Your task to perform on an android device: turn on javascript in the chrome app Image 0: 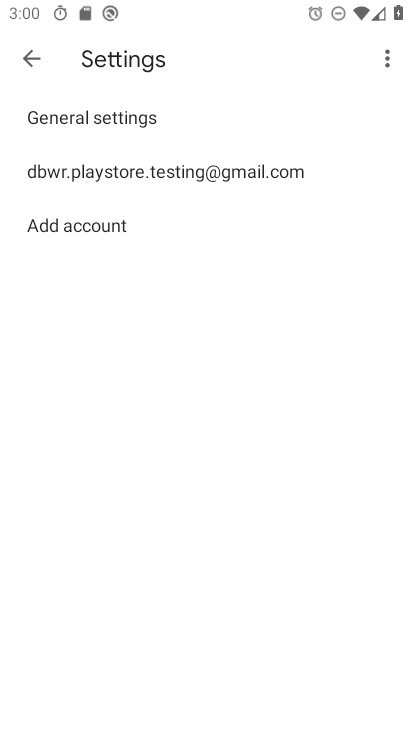
Step 0: press home button
Your task to perform on an android device: turn on javascript in the chrome app Image 1: 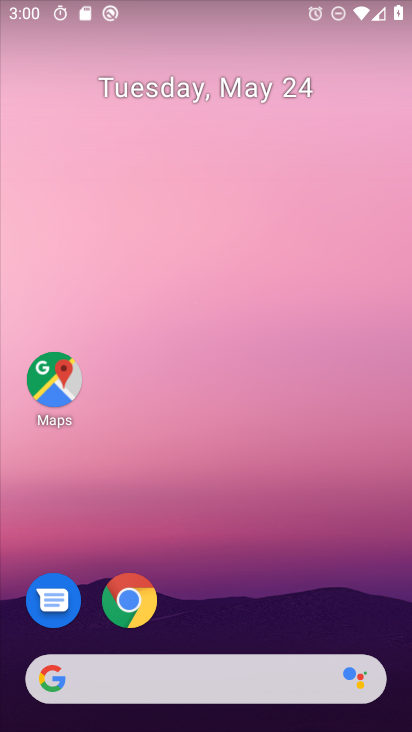
Step 1: click (132, 584)
Your task to perform on an android device: turn on javascript in the chrome app Image 2: 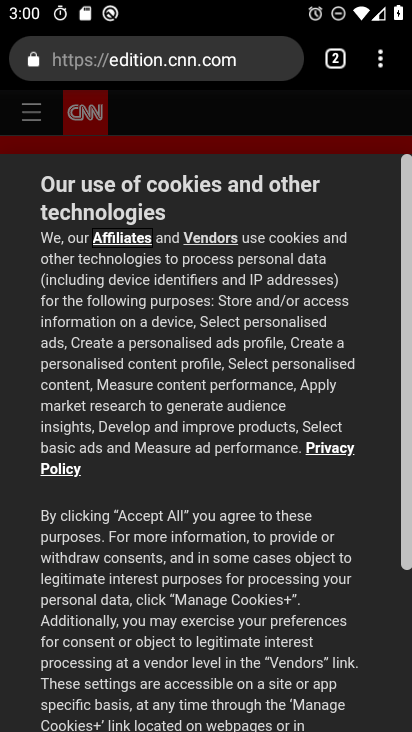
Step 2: click (377, 58)
Your task to perform on an android device: turn on javascript in the chrome app Image 3: 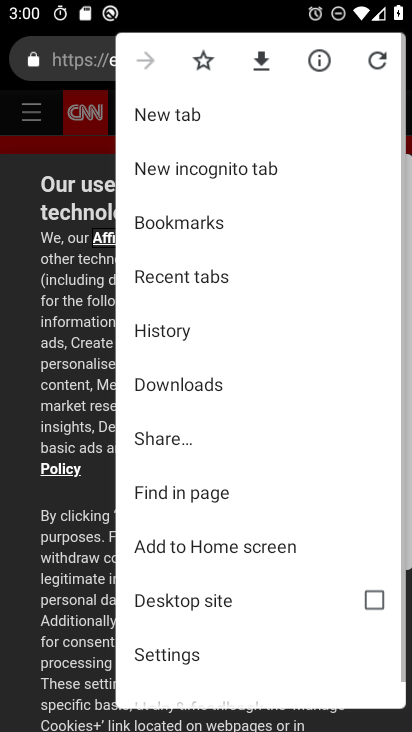
Step 3: drag from (230, 627) to (280, 217)
Your task to perform on an android device: turn on javascript in the chrome app Image 4: 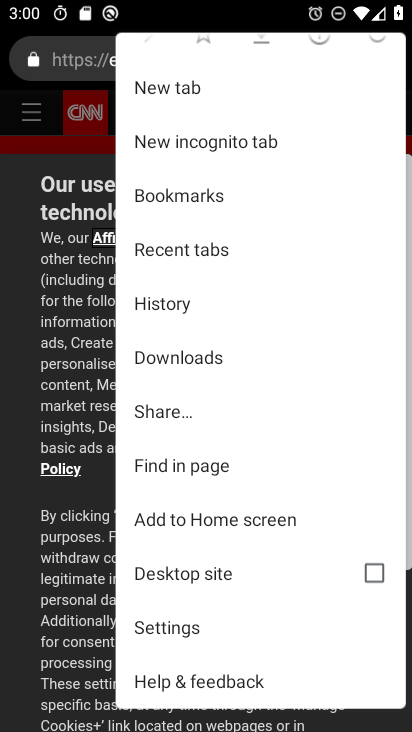
Step 4: click (179, 618)
Your task to perform on an android device: turn on javascript in the chrome app Image 5: 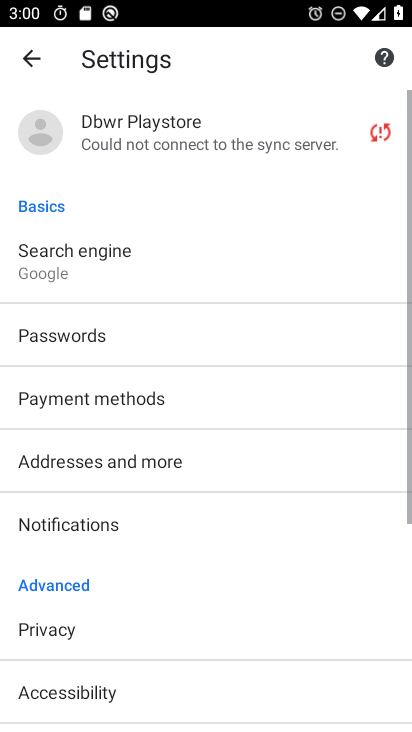
Step 5: drag from (186, 611) to (296, 93)
Your task to perform on an android device: turn on javascript in the chrome app Image 6: 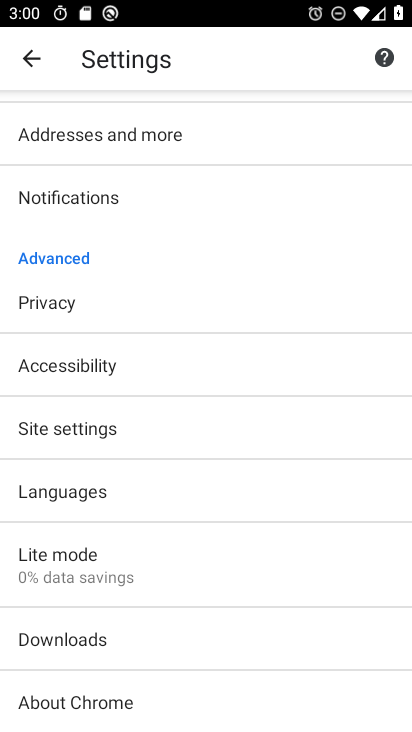
Step 6: click (70, 431)
Your task to perform on an android device: turn on javascript in the chrome app Image 7: 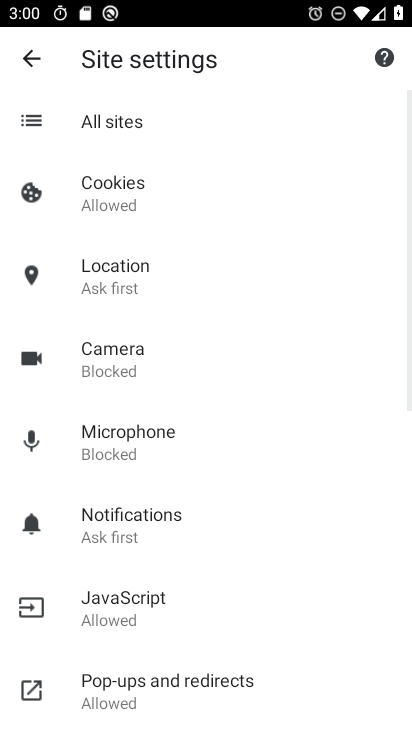
Step 7: click (156, 613)
Your task to perform on an android device: turn on javascript in the chrome app Image 8: 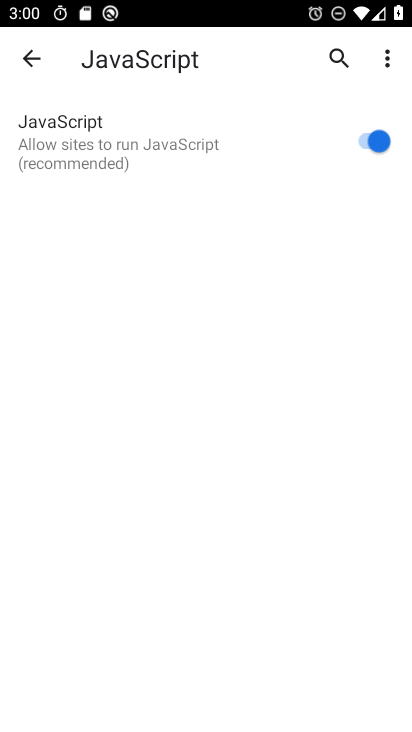
Step 8: task complete